Your task to perform on an android device: Open notification settings Image 0: 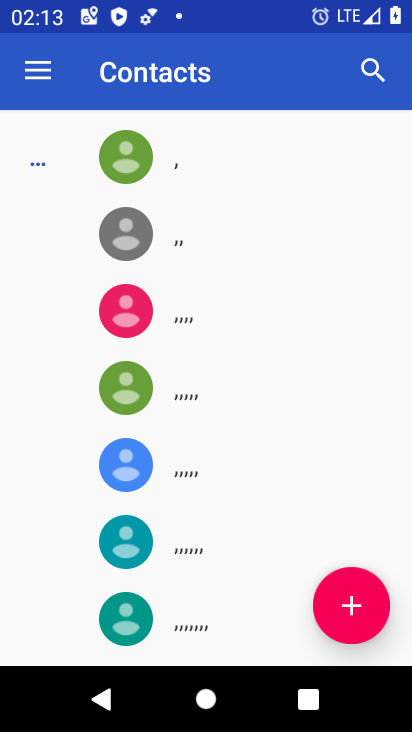
Step 0: press home button
Your task to perform on an android device: Open notification settings Image 1: 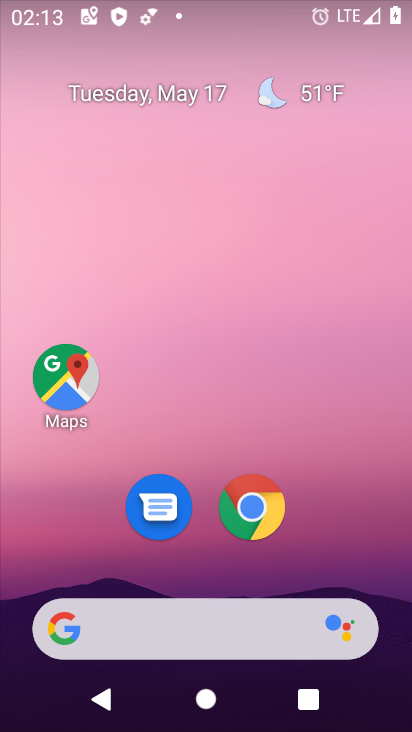
Step 1: drag from (241, 502) to (266, 118)
Your task to perform on an android device: Open notification settings Image 2: 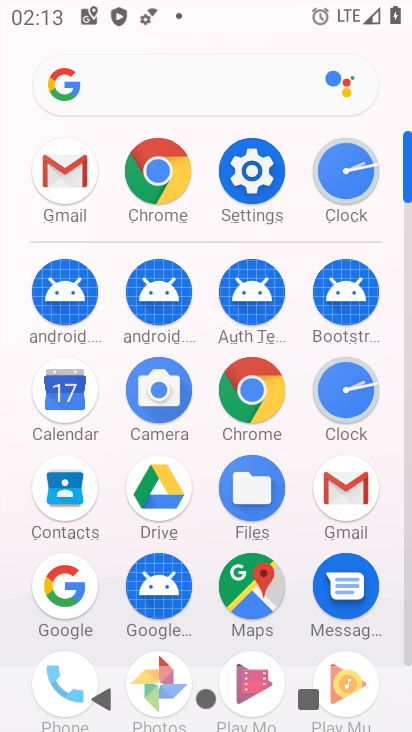
Step 2: click (259, 177)
Your task to perform on an android device: Open notification settings Image 3: 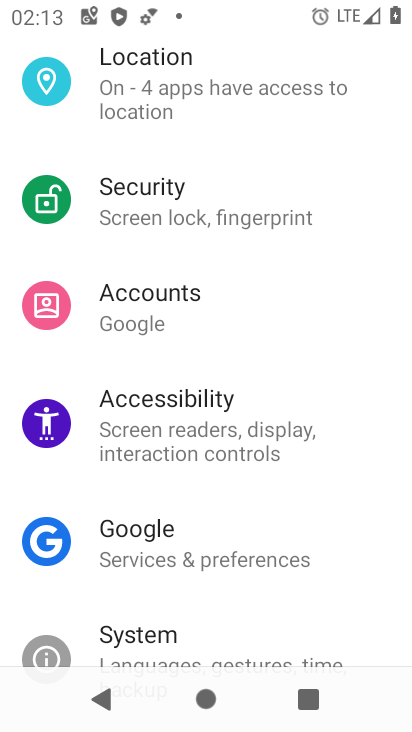
Step 3: drag from (219, 279) to (267, 464)
Your task to perform on an android device: Open notification settings Image 4: 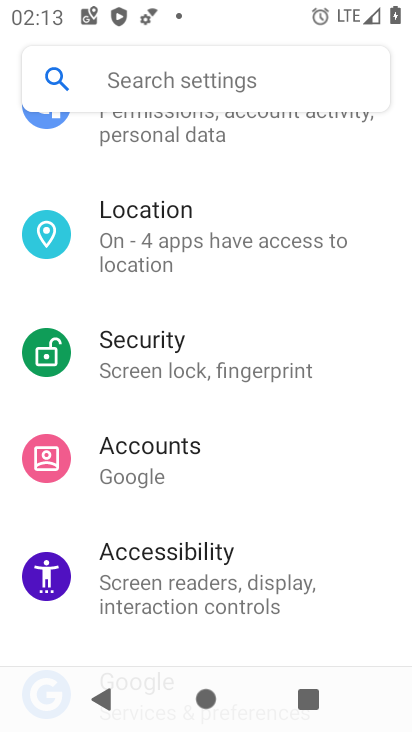
Step 4: drag from (262, 313) to (290, 492)
Your task to perform on an android device: Open notification settings Image 5: 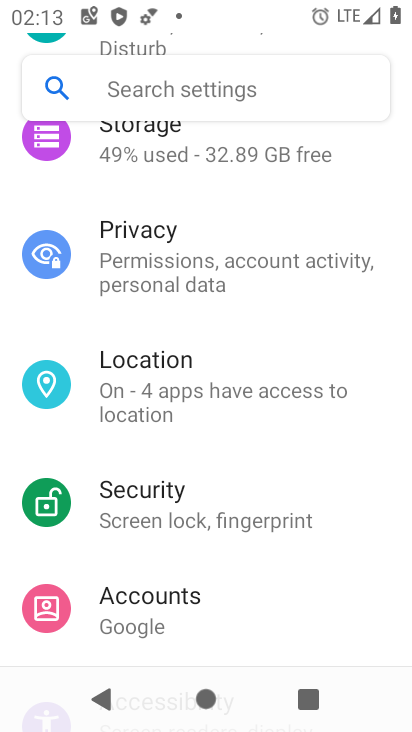
Step 5: drag from (267, 308) to (306, 493)
Your task to perform on an android device: Open notification settings Image 6: 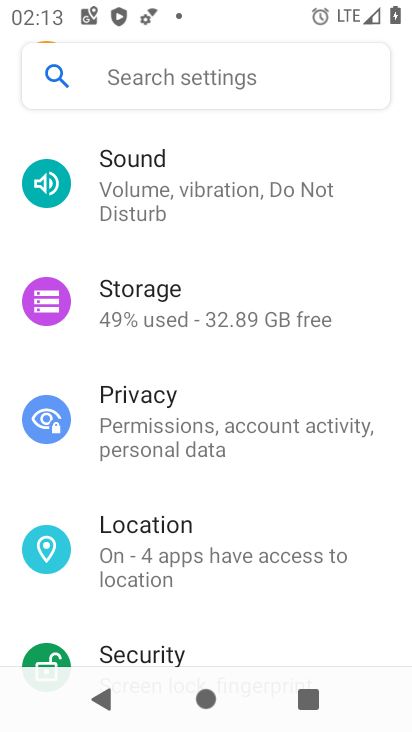
Step 6: drag from (301, 233) to (217, 575)
Your task to perform on an android device: Open notification settings Image 7: 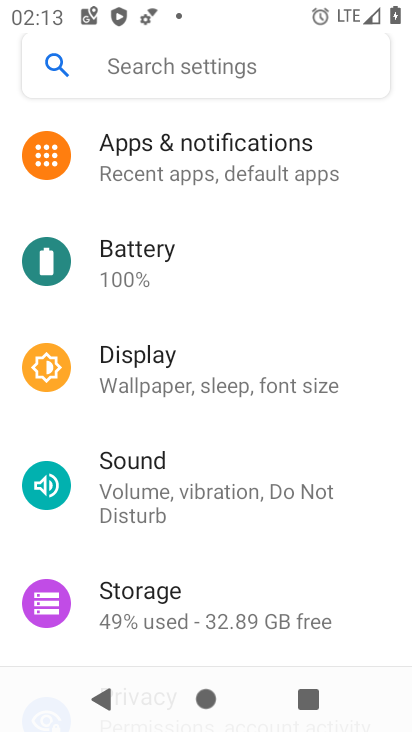
Step 7: click (245, 172)
Your task to perform on an android device: Open notification settings Image 8: 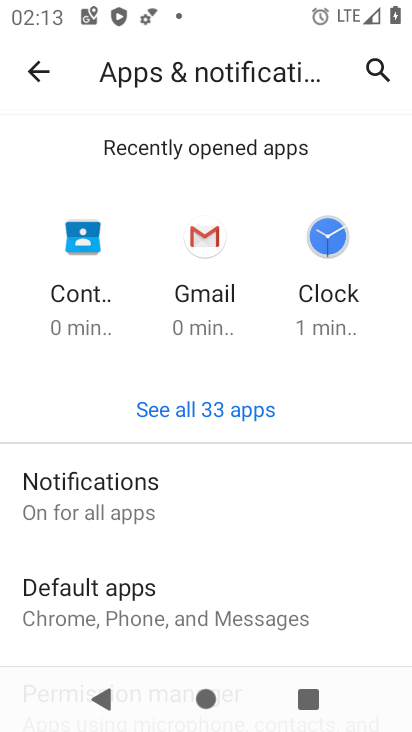
Step 8: click (206, 490)
Your task to perform on an android device: Open notification settings Image 9: 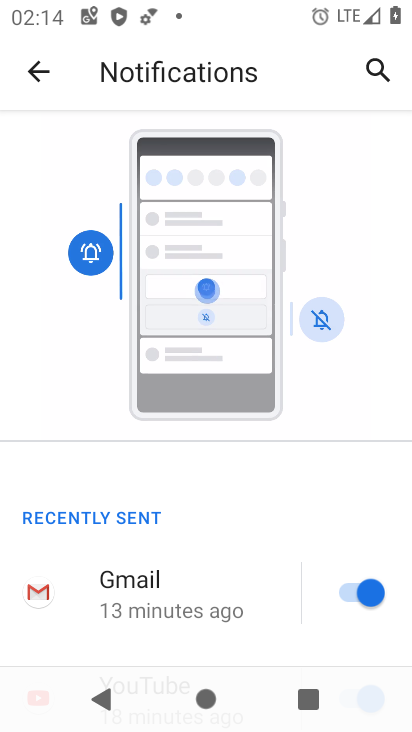
Step 9: task complete